Your task to perform on an android device: check google app version Image 0: 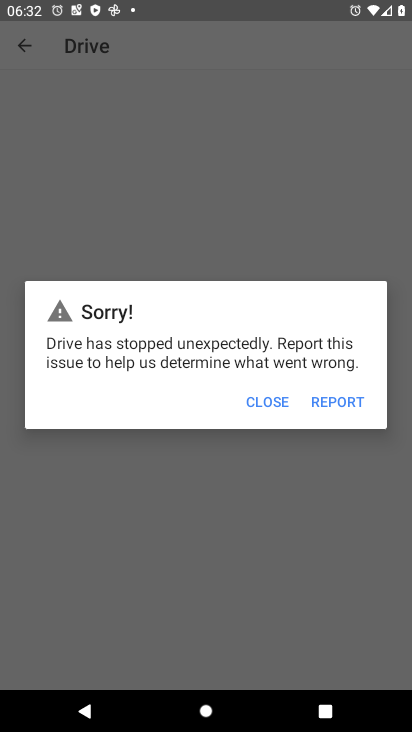
Step 0: press home button
Your task to perform on an android device: check google app version Image 1: 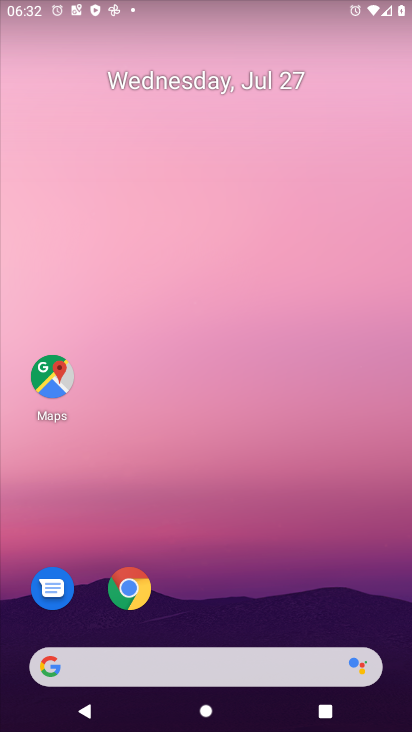
Step 1: click (52, 667)
Your task to perform on an android device: check google app version Image 2: 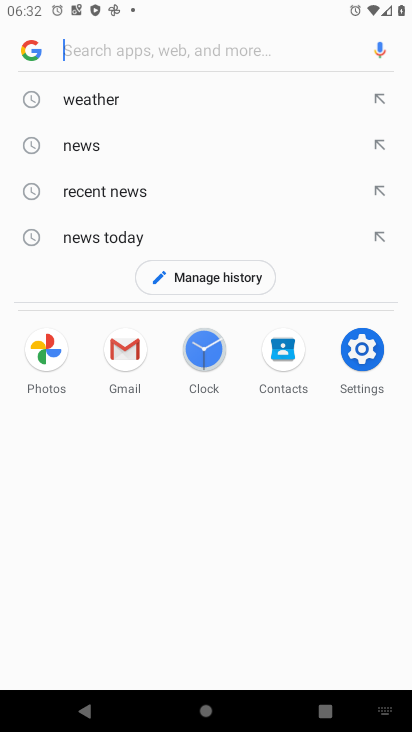
Step 2: click (30, 55)
Your task to perform on an android device: check google app version Image 3: 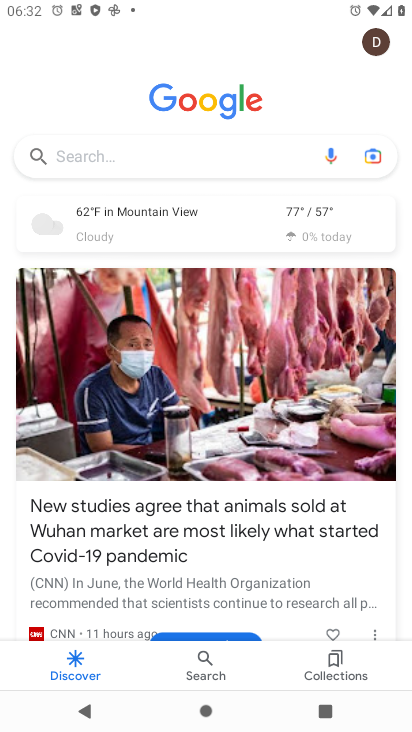
Step 3: click (380, 40)
Your task to perform on an android device: check google app version Image 4: 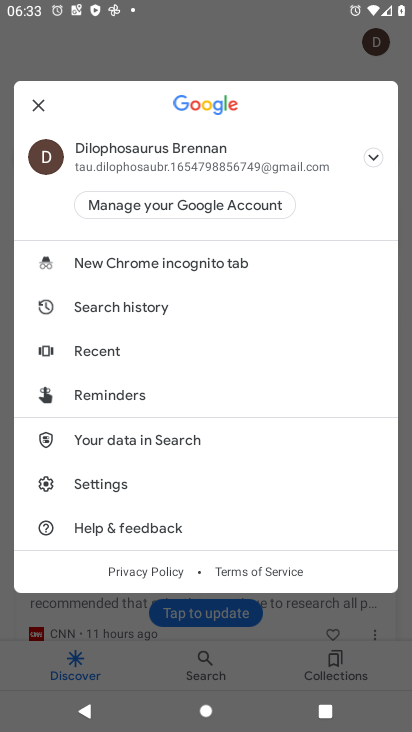
Step 4: click (101, 473)
Your task to perform on an android device: check google app version Image 5: 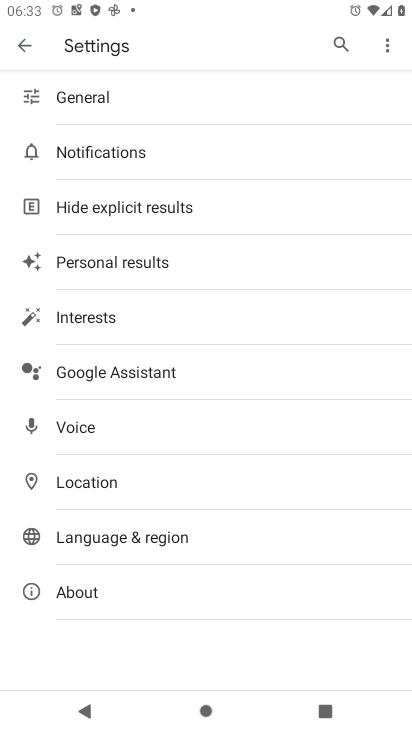
Step 5: click (76, 603)
Your task to perform on an android device: check google app version Image 6: 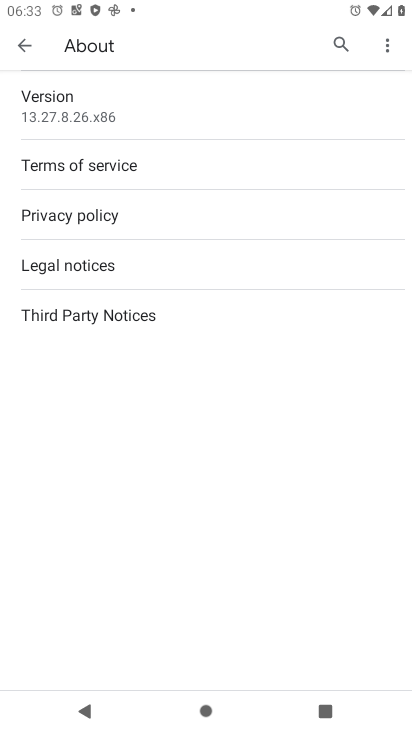
Step 6: task complete